Your task to perform on an android device: refresh tabs in the chrome app Image 0: 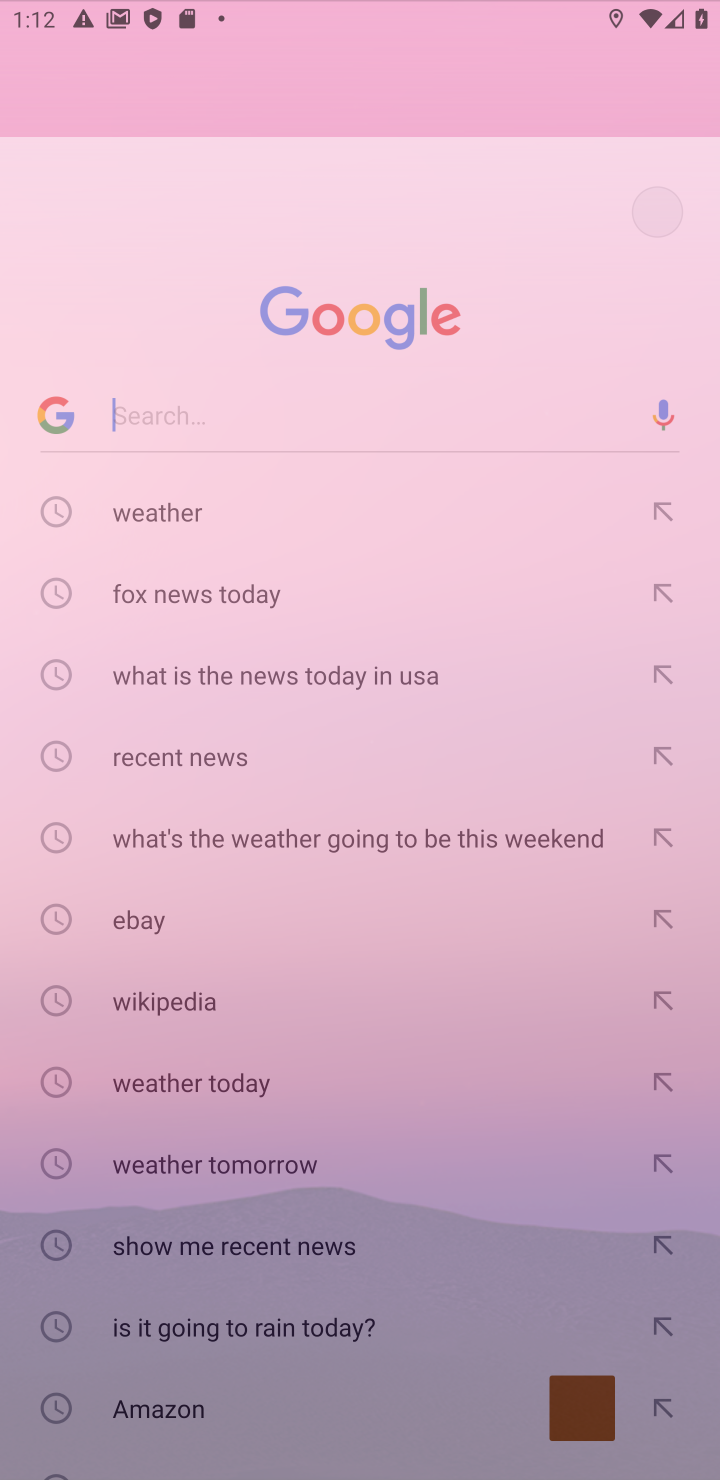
Step 0: press home button
Your task to perform on an android device: refresh tabs in the chrome app Image 1: 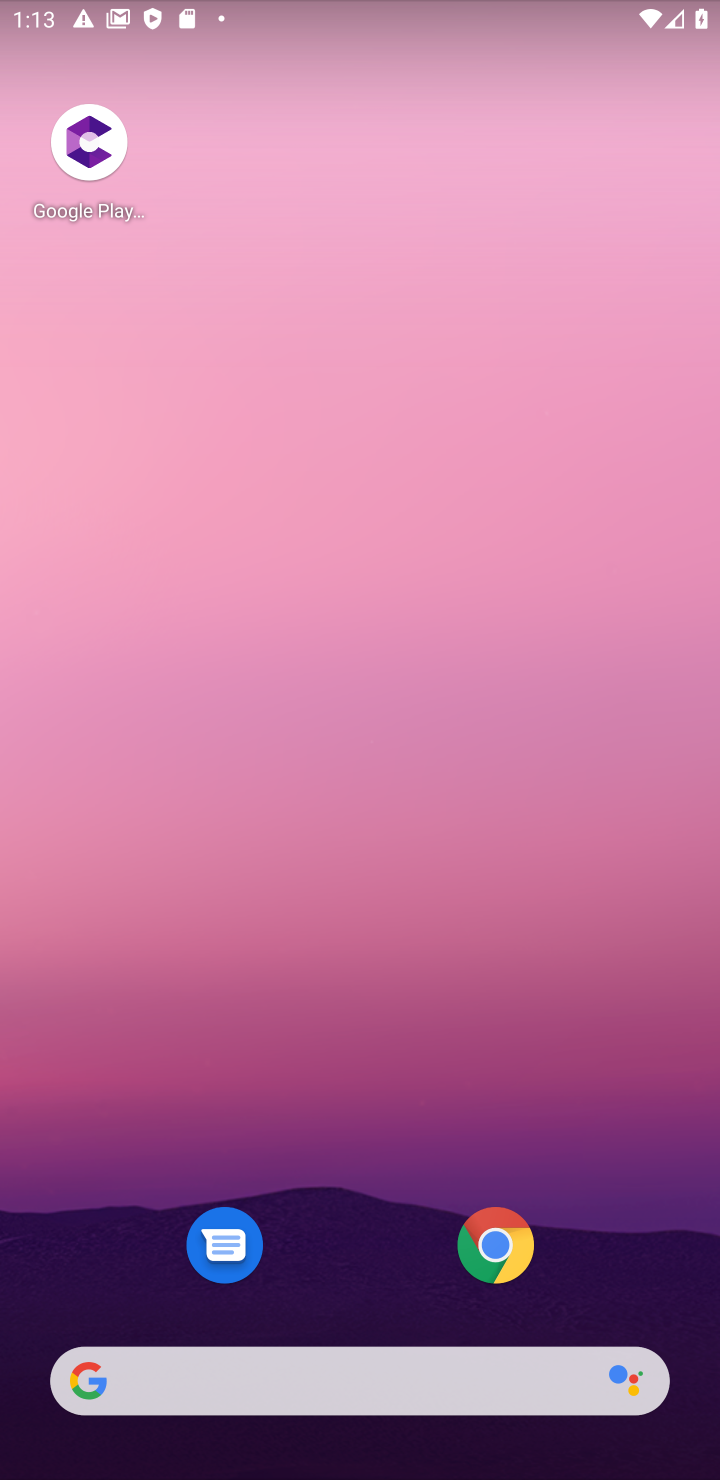
Step 1: click (493, 1256)
Your task to perform on an android device: refresh tabs in the chrome app Image 2: 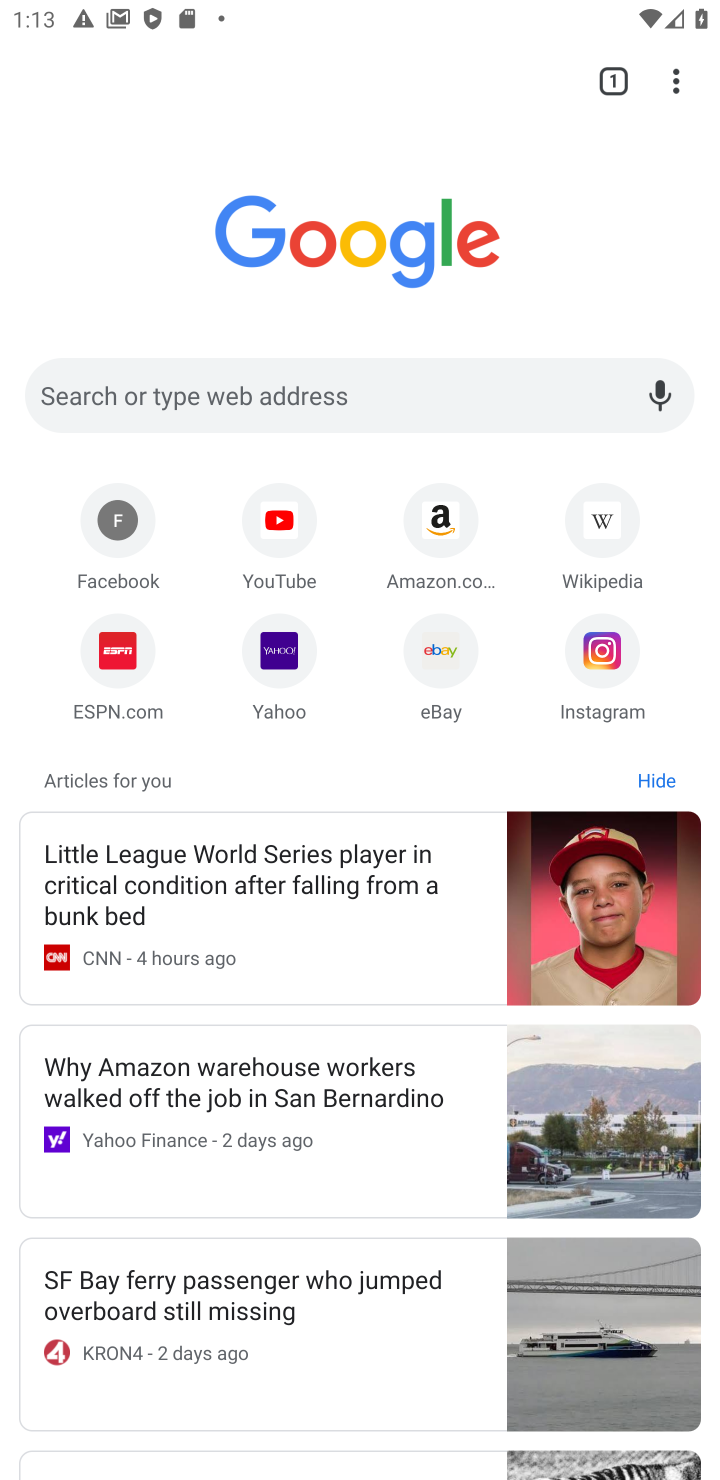
Step 2: click (673, 86)
Your task to perform on an android device: refresh tabs in the chrome app Image 3: 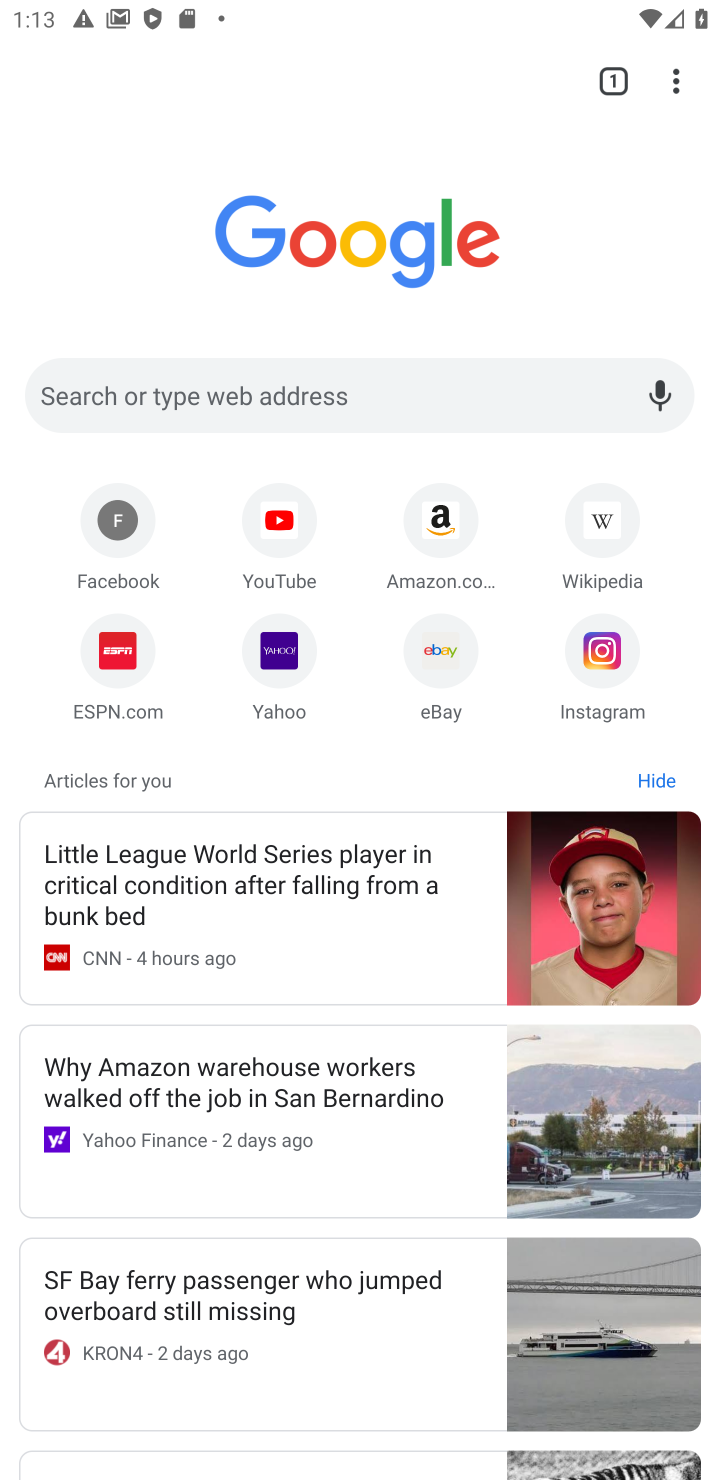
Step 3: task complete